Your task to perform on an android device: Empty the shopping cart on target. Image 0: 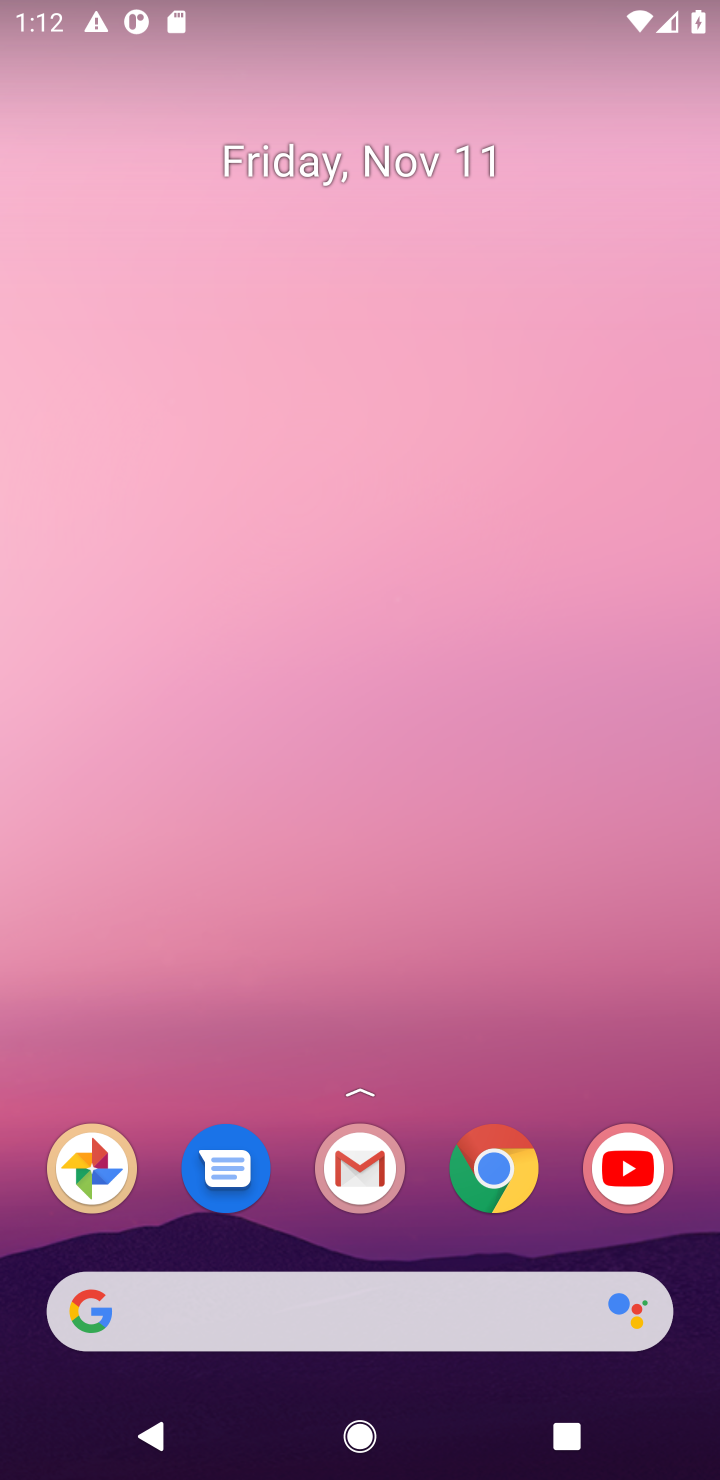
Step 0: click (495, 1159)
Your task to perform on an android device: Empty the shopping cart on target. Image 1: 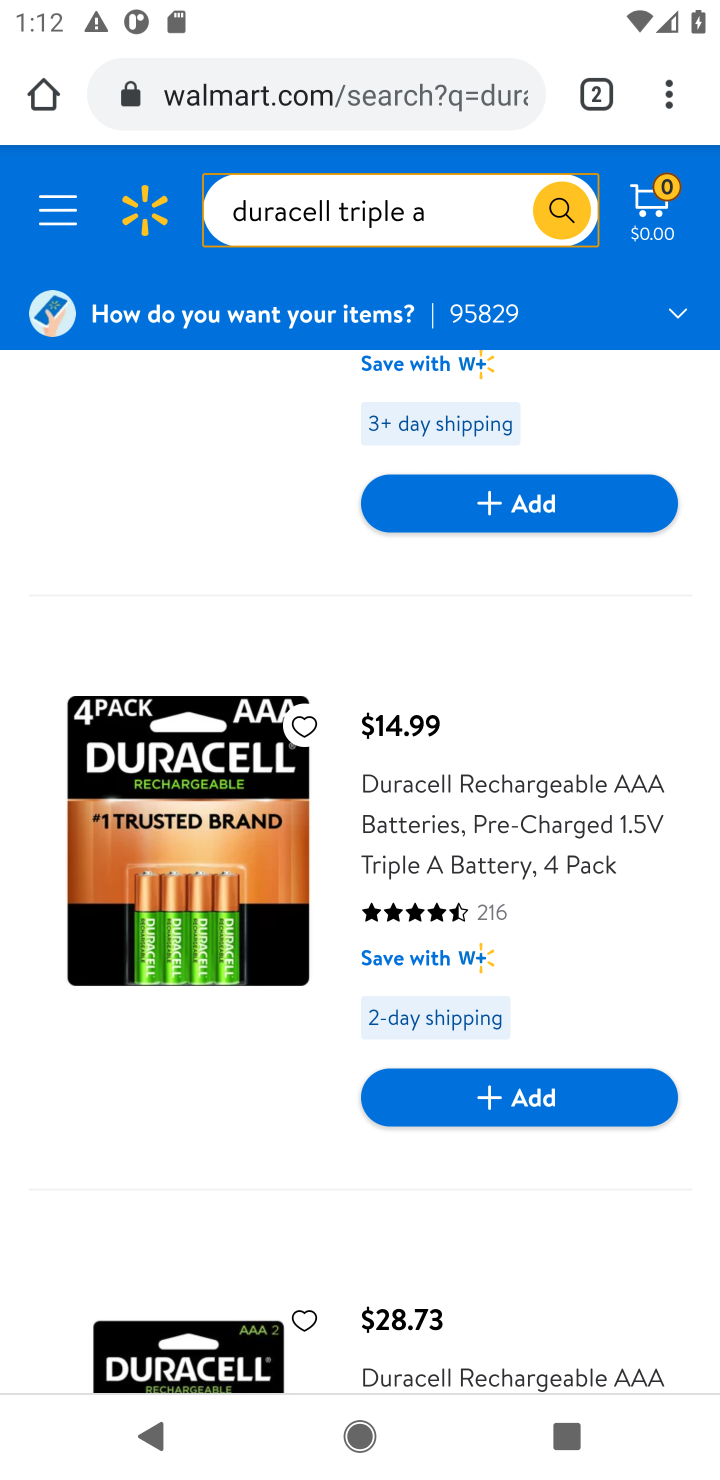
Step 1: click (341, 96)
Your task to perform on an android device: Empty the shopping cart on target. Image 2: 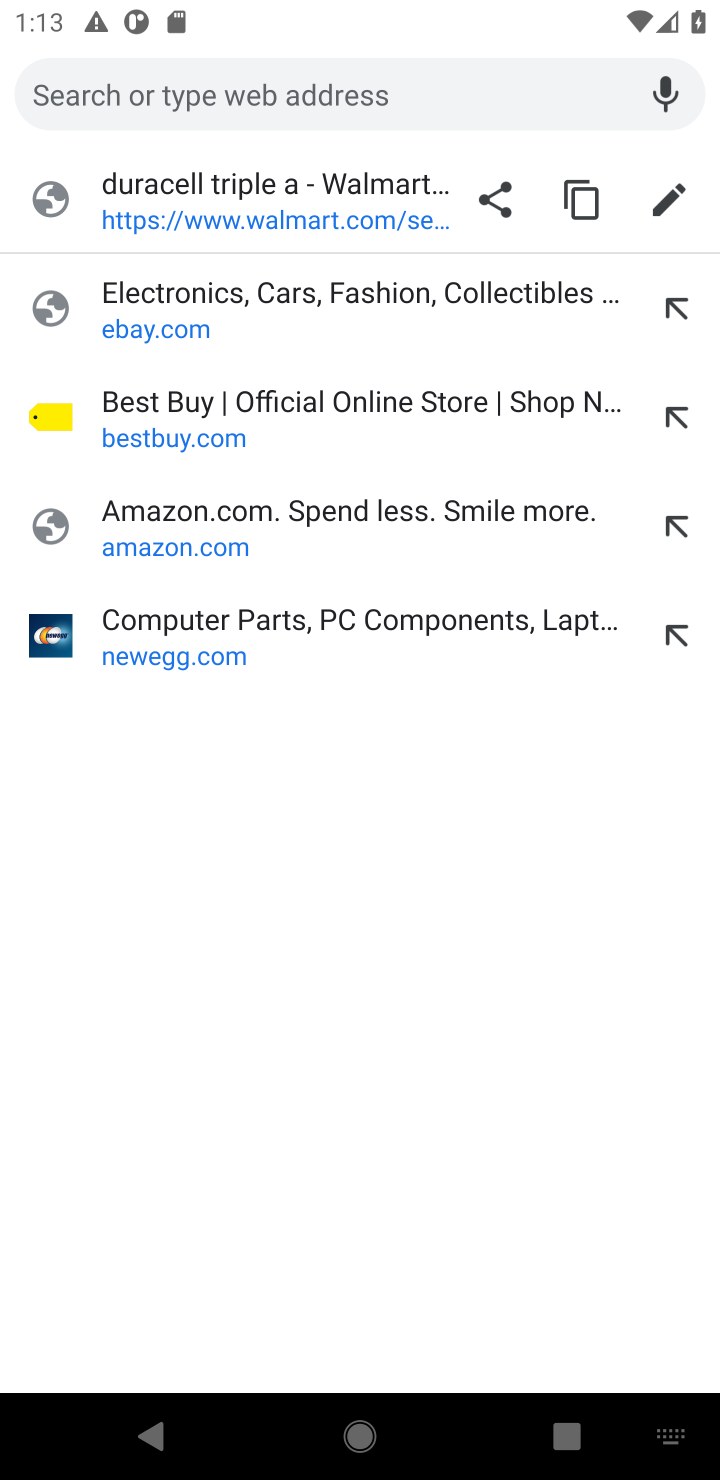
Step 2: type "target.com"
Your task to perform on an android device: Empty the shopping cart on target. Image 3: 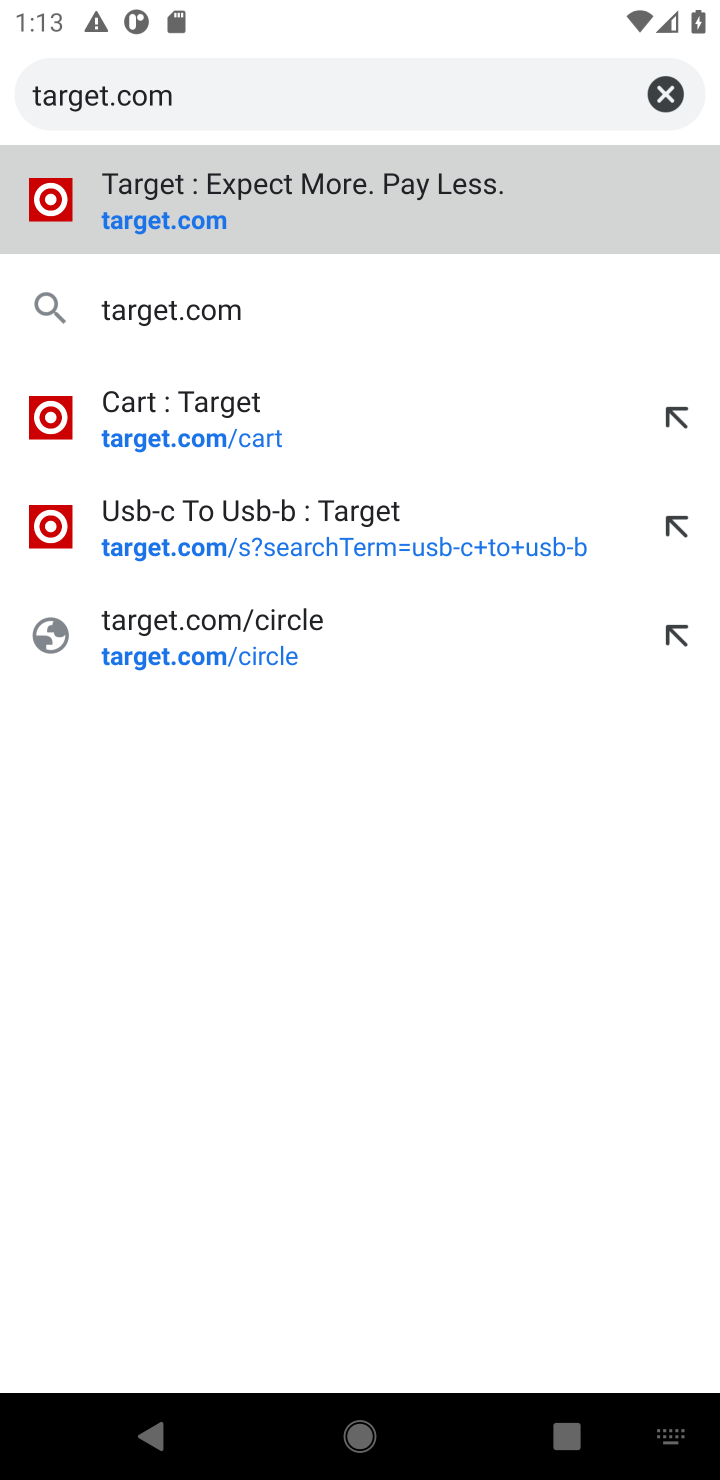
Step 3: click (171, 231)
Your task to perform on an android device: Empty the shopping cart on target. Image 4: 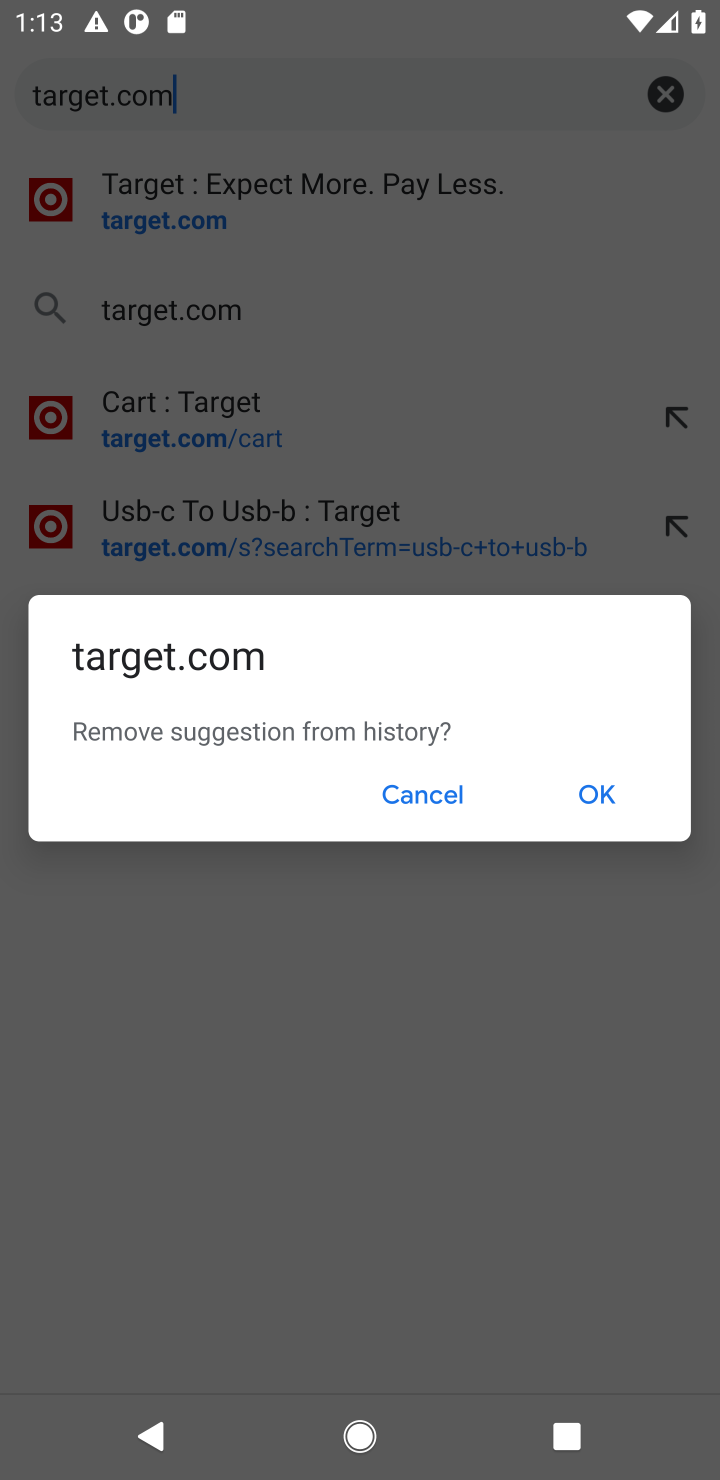
Step 4: click (419, 802)
Your task to perform on an android device: Empty the shopping cart on target. Image 5: 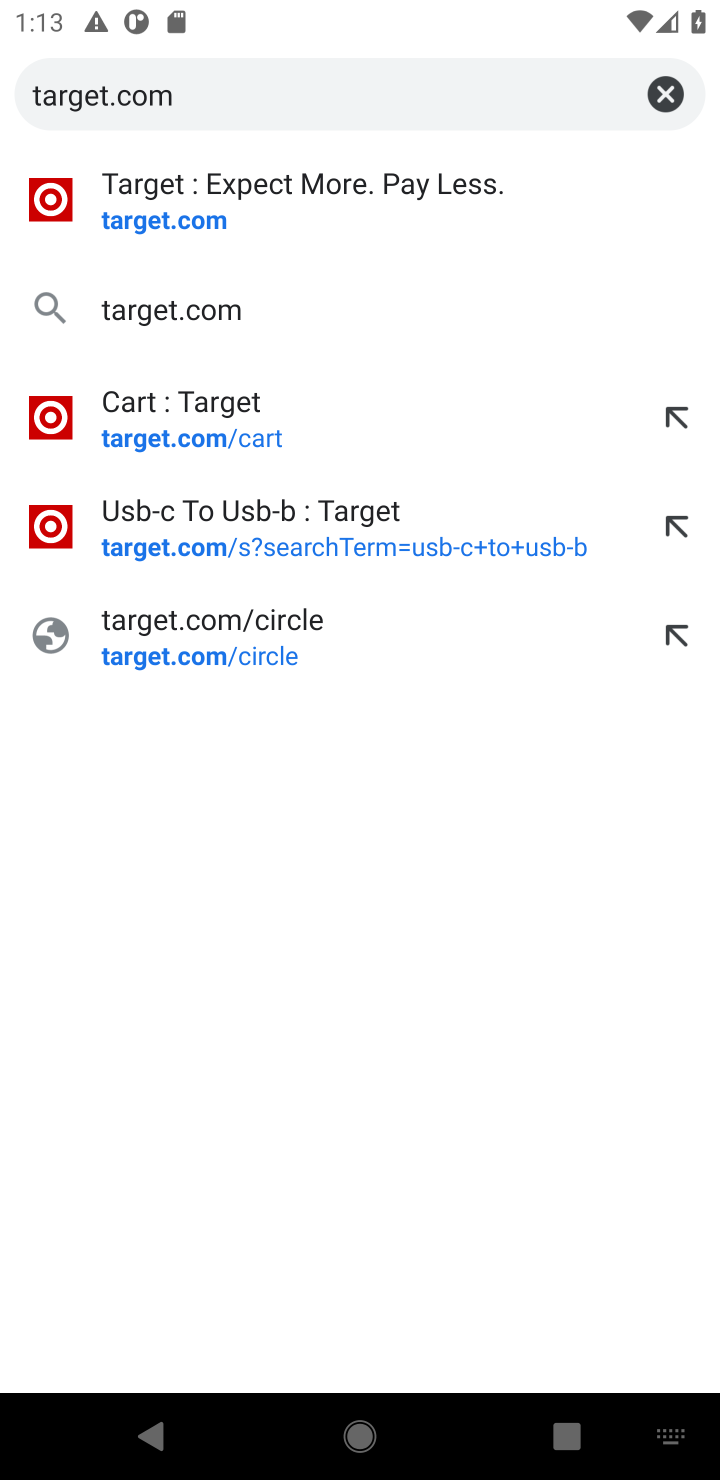
Step 5: click (155, 217)
Your task to perform on an android device: Empty the shopping cart on target. Image 6: 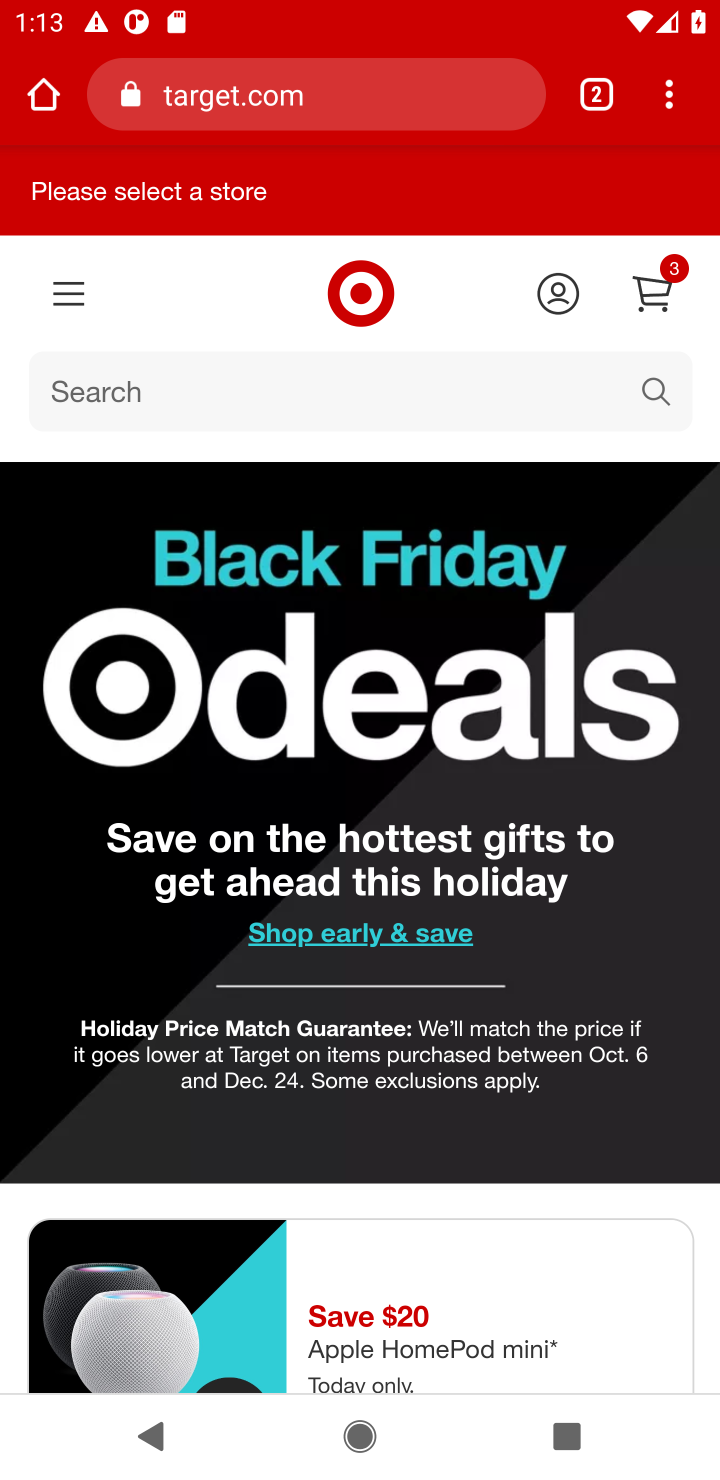
Step 6: click (651, 292)
Your task to perform on an android device: Empty the shopping cart on target. Image 7: 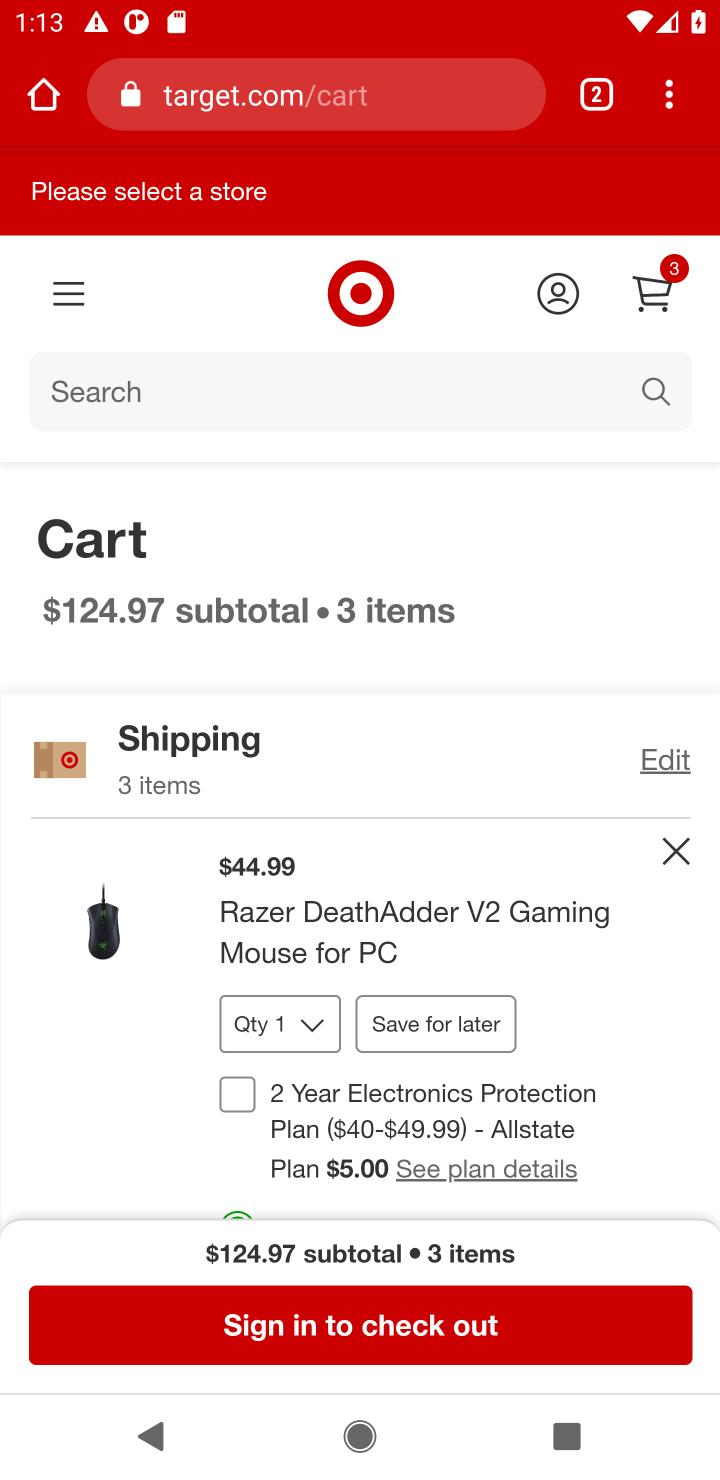
Step 7: click (671, 851)
Your task to perform on an android device: Empty the shopping cart on target. Image 8: 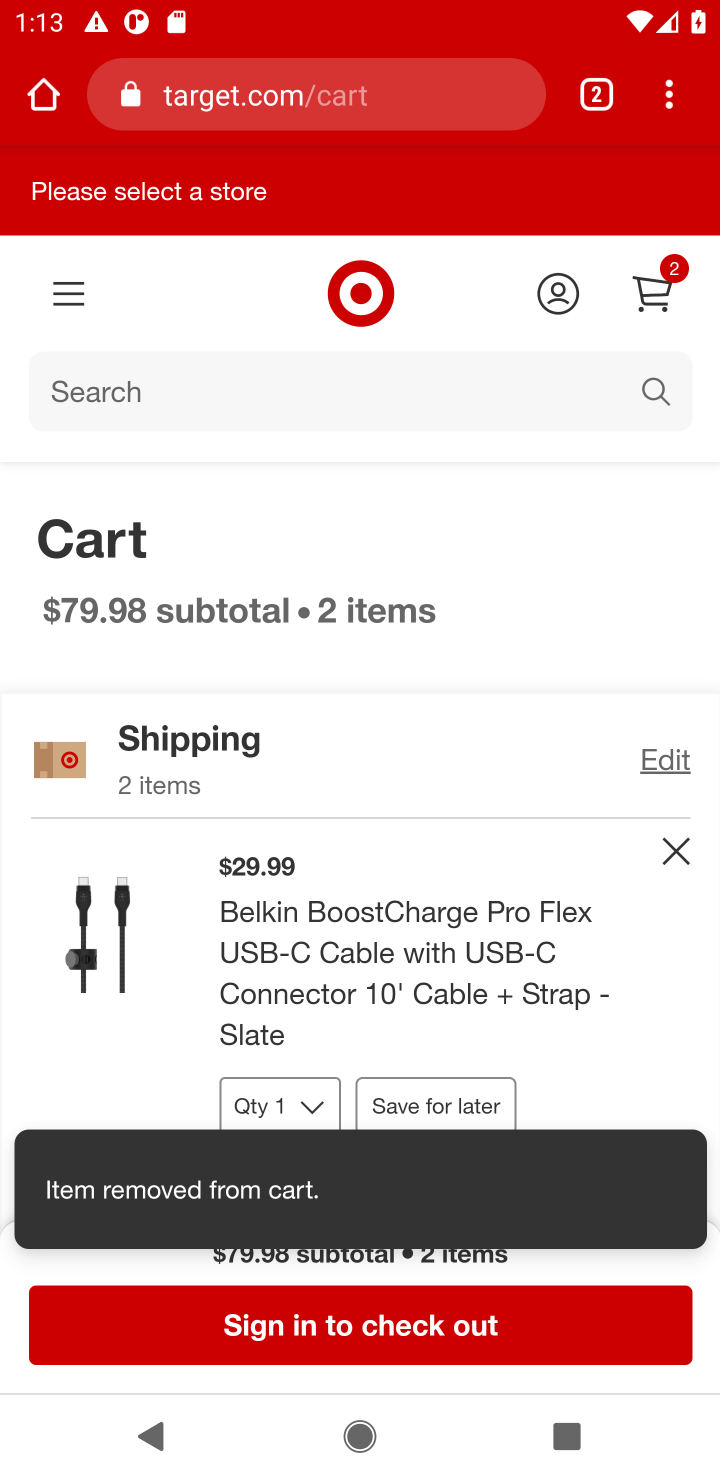
Step 8: click (671, 851)
Your task to perform on an android device: Empty the shopping cart on target. Image 9: 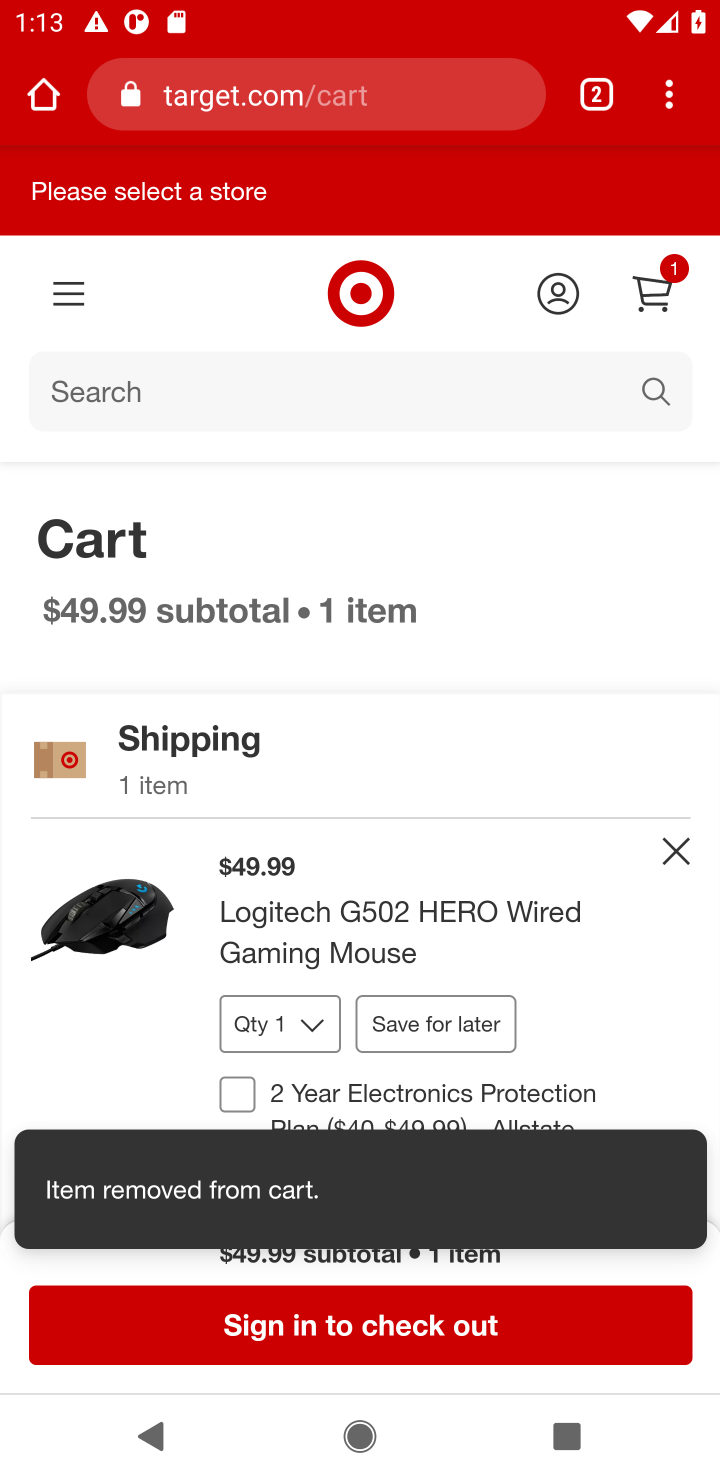
Step 9: click (671, 851)
Your task to perform on an android device: Empty the shopping cart on target. Image 10: 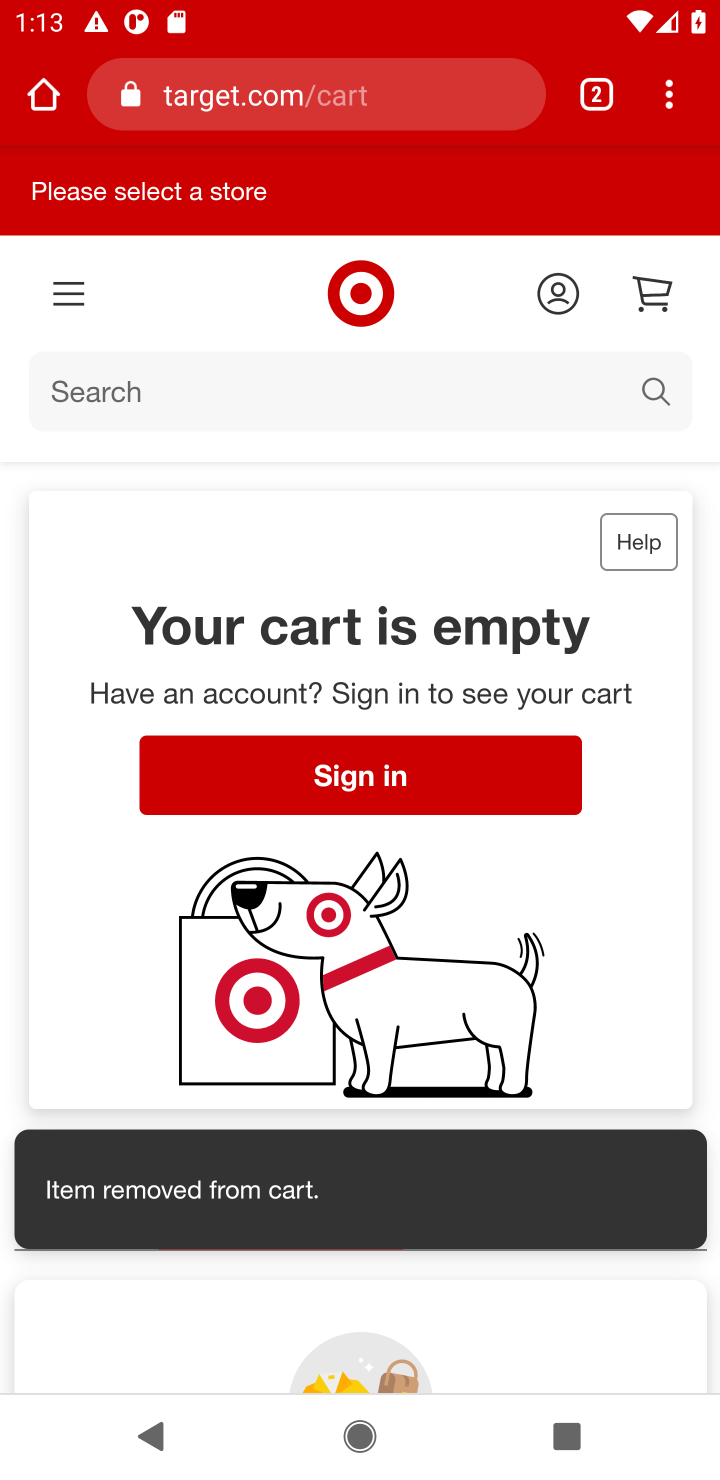
Step 10: task complete